Your task to perform on an android device: Open my contact list Image 0: 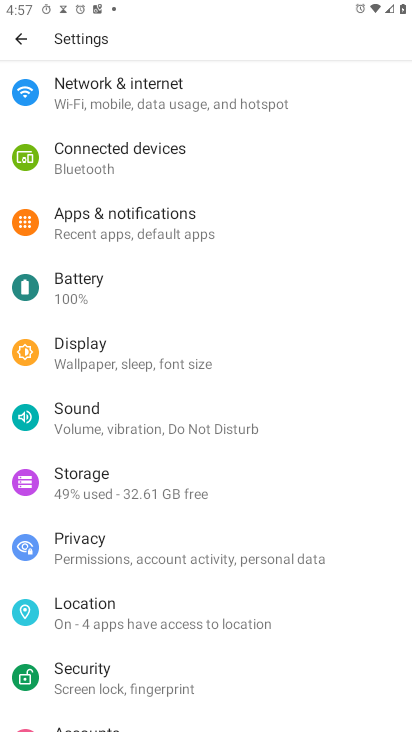
Step 0: press home button
Your task to perform on an android device: Open my contact list Image 1: 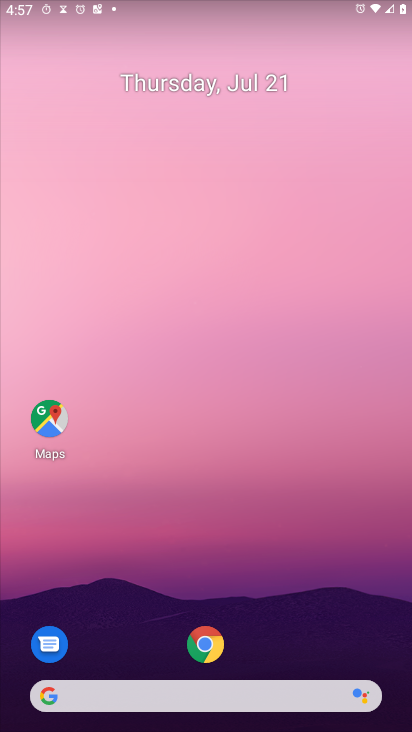
Step 1: drag from (283, 613) to (359, 30)
Your task to perform on an android device: Open my contact list Image 2: 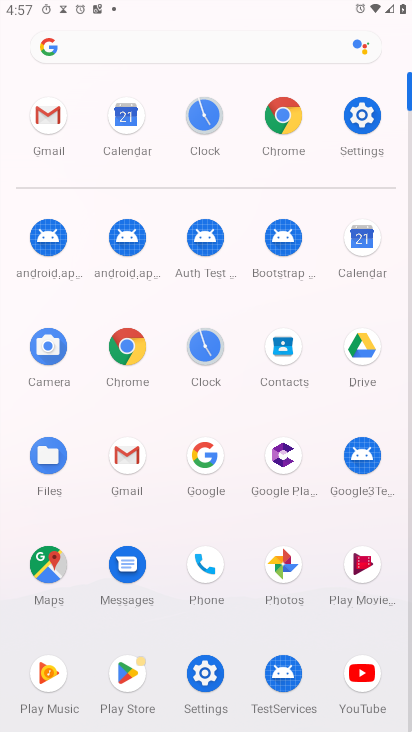
Step 2: click (275, 344)
Your task to perform on an android device: Open my contact list Image 3: 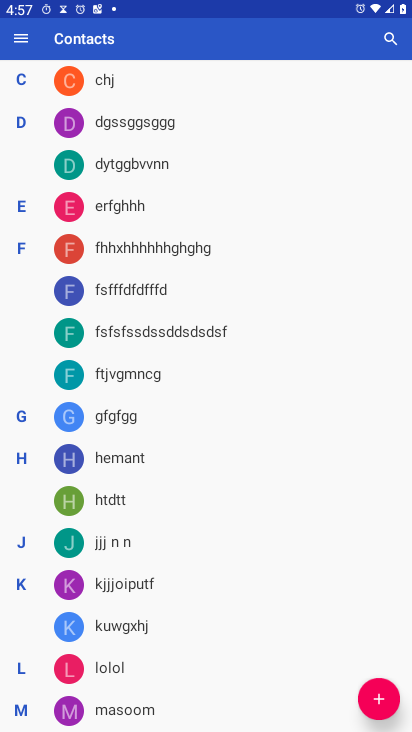
Step 3: click (371, 706)
Your task to perform on an android device: Open my contact list Image 4: 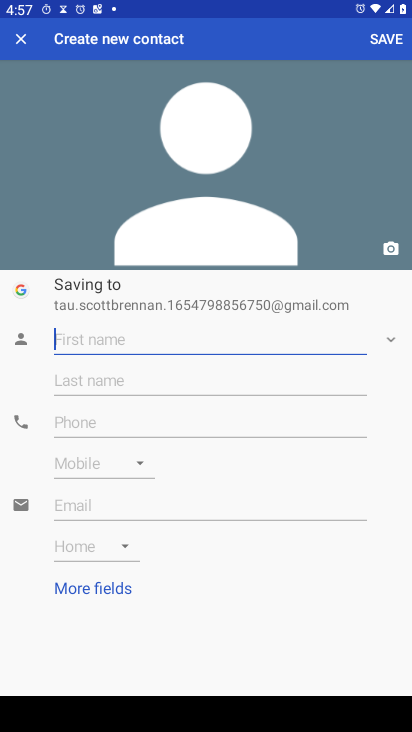
Step 4: type "ggfgfgfgfghhhh"
Your task to perform on an android device: Open my contact list Image 5: 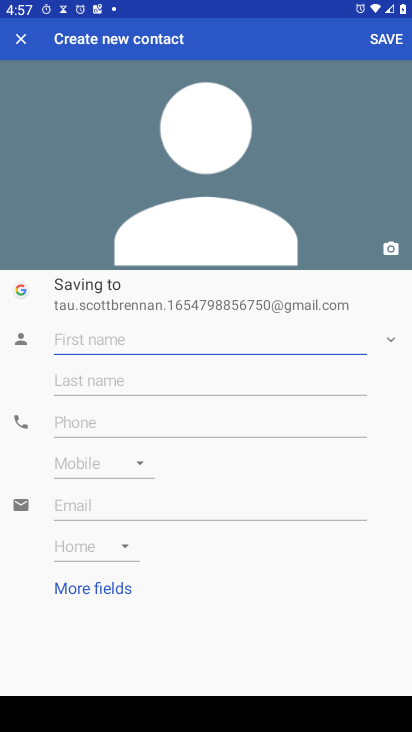
Step 5: click (88, 341)
Your task to perform on an android device: Open my contact list Image 6: 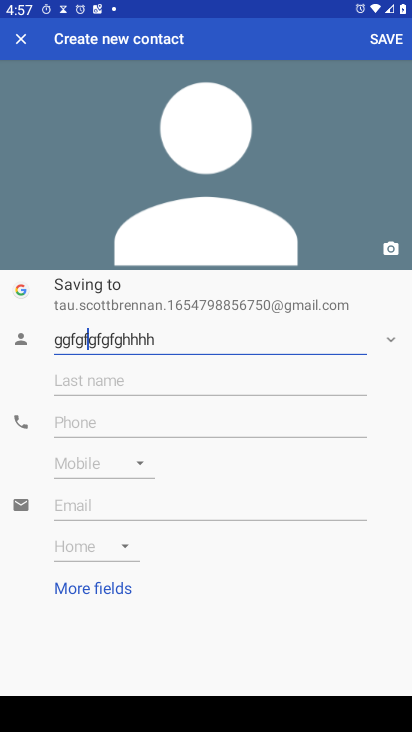
Step 6: click (117, 420)
Your task to perform on an android device: Open my contact list Image 7: 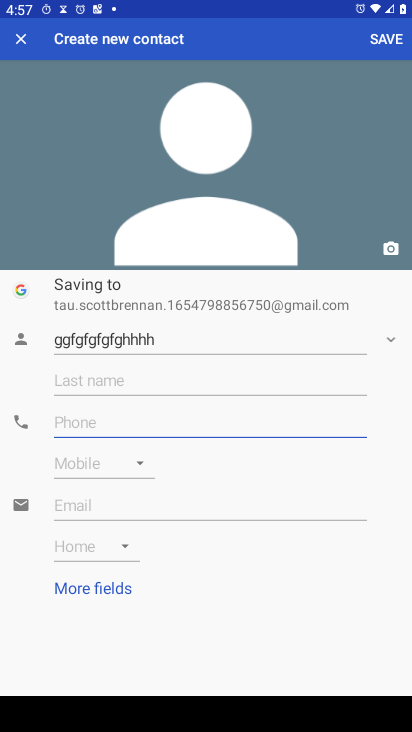
Step 7: type "664466477555"
Your task to perform on an android device: Open my contact list Image 8: 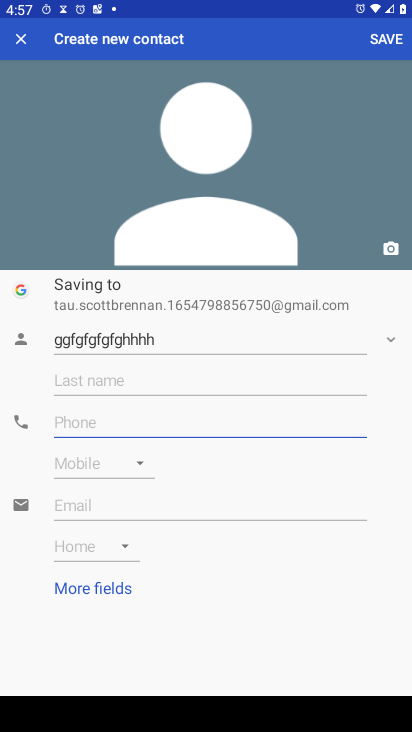
Step 8: click (91, 426)
Your task to perform on an android device: Open my contact list Image 9: 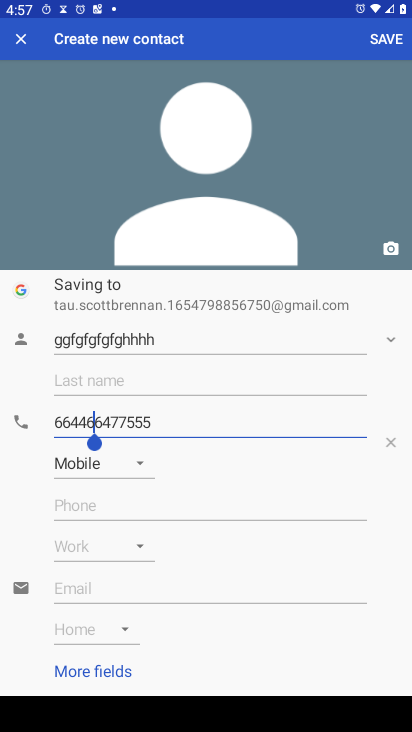
Step 9: click (389, 44)
Your task to perform on an android device: Open my contact list Image 10: 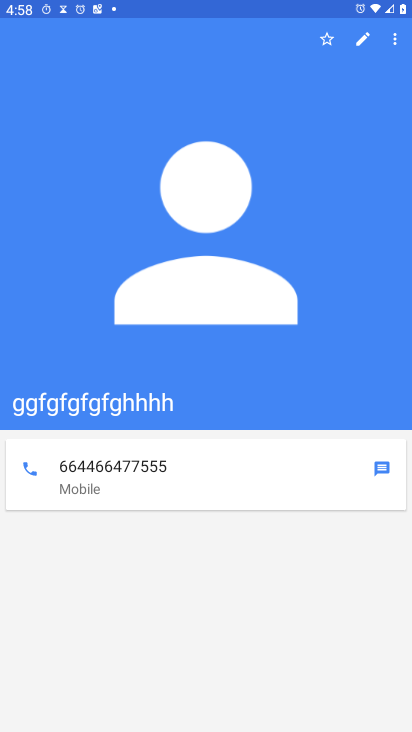
Step 10: task complete